Your task to perform on an android device: Open Google Chrome and click the shortcut for Amazon.com Image 0: 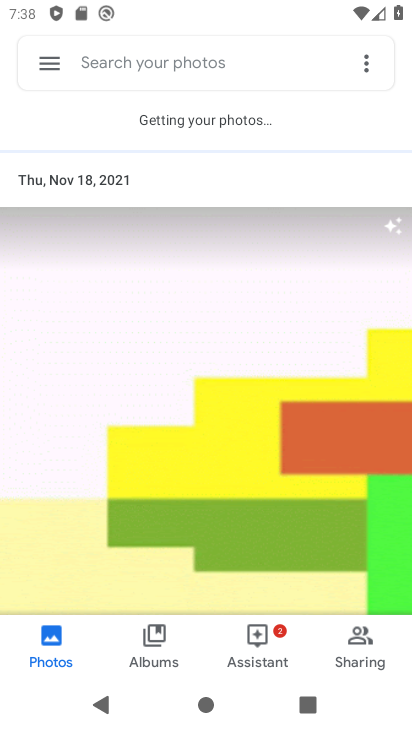
Step 0: press home button
Your task to perform on an android device: Open Google Chrome and click the shortcut for Amazon.com Image 1: 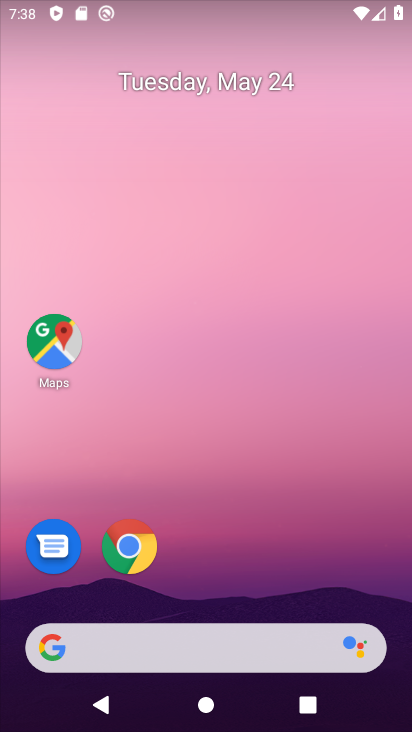
Step 1: click (141, 551)
Your task to perform on an android device: Open Google Chrome and click the shortcut for Amazon.com Image 2: 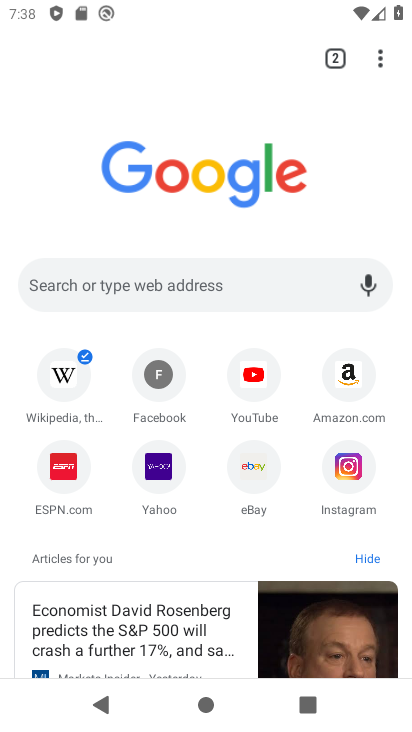
Step 2: click (350, 369)
Your task to perform on an android device: Open Google Chrome and click the shortcut for Amazon.com Image 3: 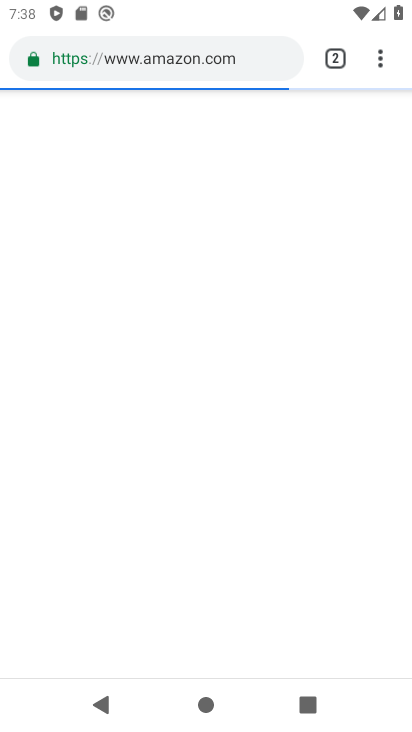
Step 3: click (350, 369)
Your task to perform on an android device: Open Google Chrome and click the shortcut for Amazon.com Image 4: 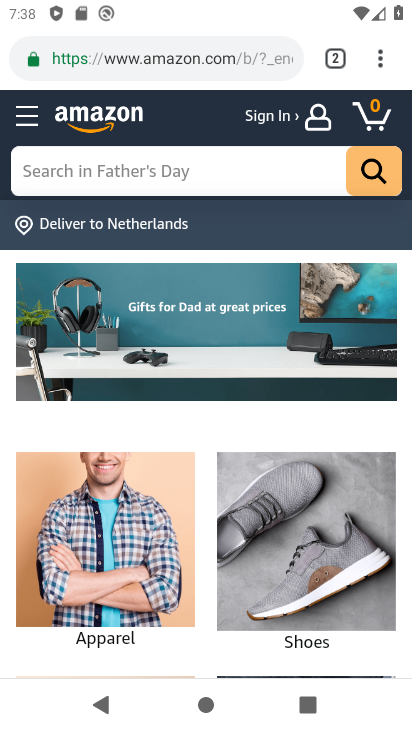
Step 4: task complete